Your task to perform on an android device: Go to ESPN.com Image 0: 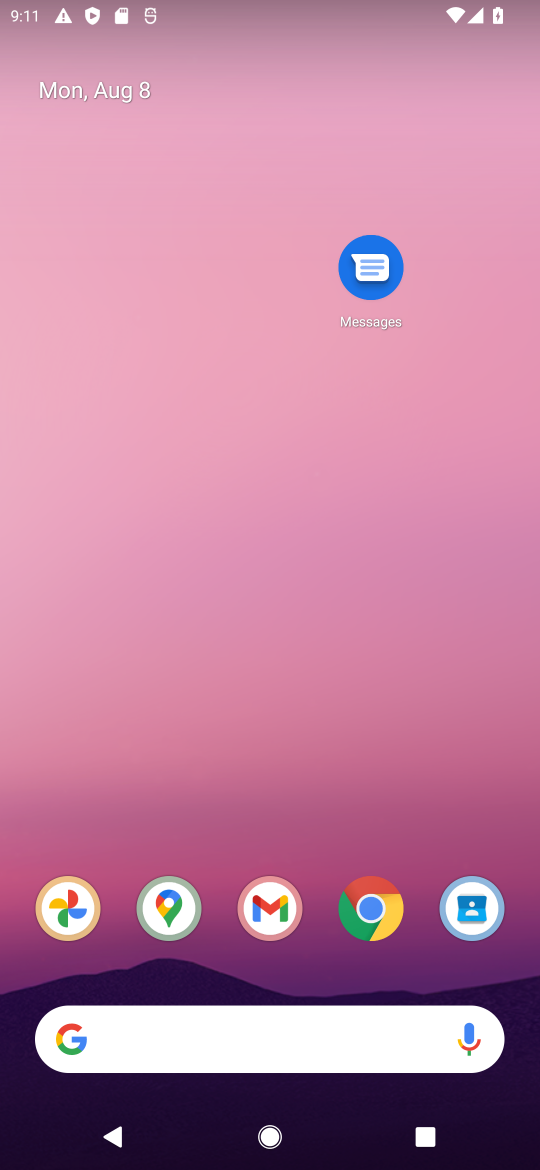
Step 0: click (232, 1053)
Your task to perform on an android device: Go to ESPN.com Image 1: 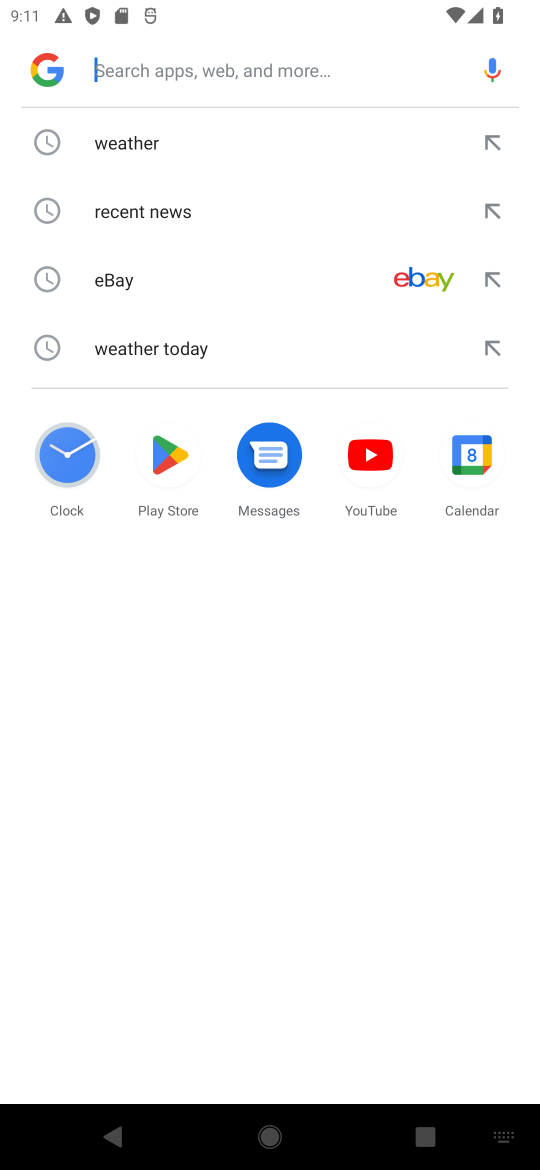
Step 1: click (58, 62)
Your task to perform on an android device: Go to ESPN.com Image 2: 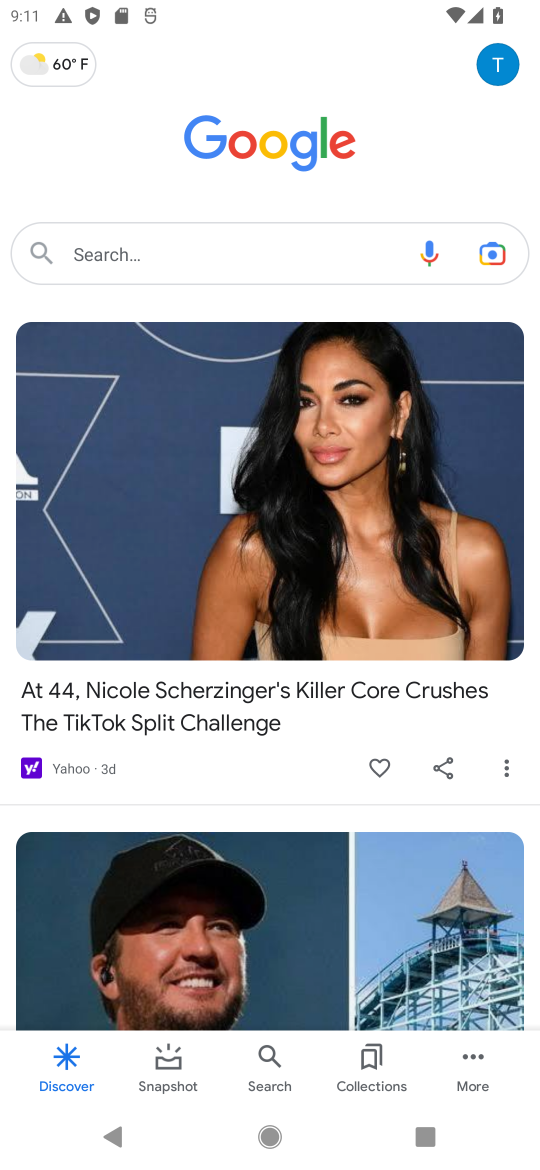
Step 2: click (217, 264)
Your task to perform on an android device: Go to ESPN.com Image 3: 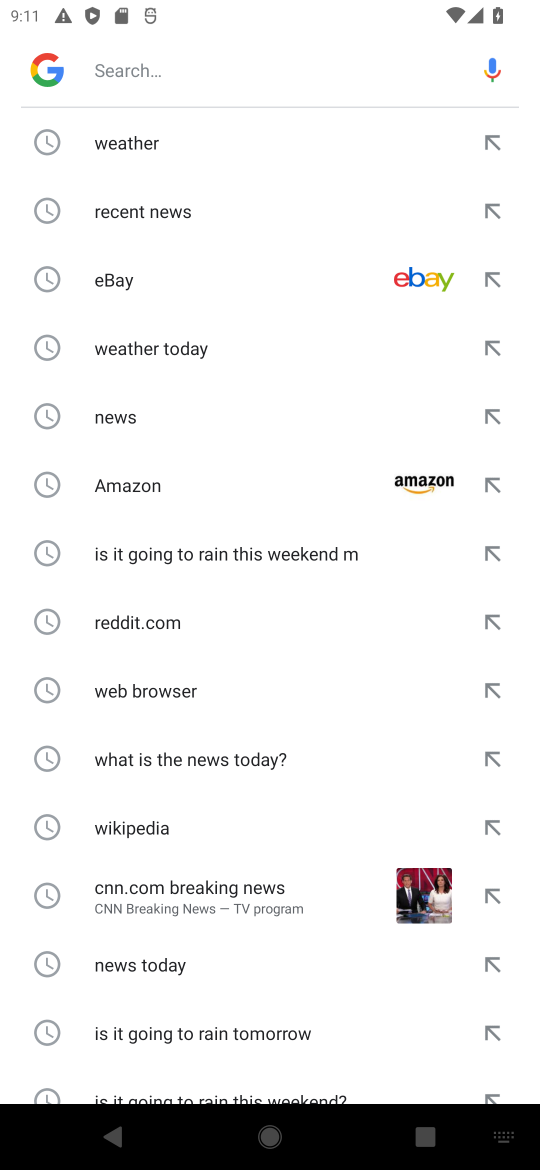
Step 3: type "espn"
Your task to perform on an android device: Go to ESPN.com Image 4: 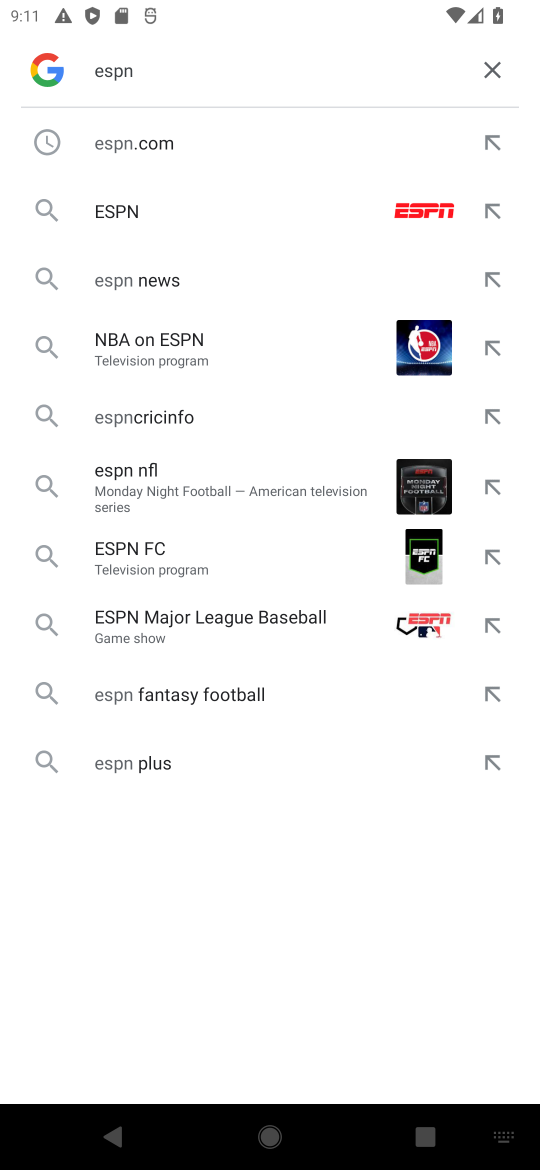
Step 4: click (215, 155)
Your task to perform on an android device: Go to ESPN.com Image 5: 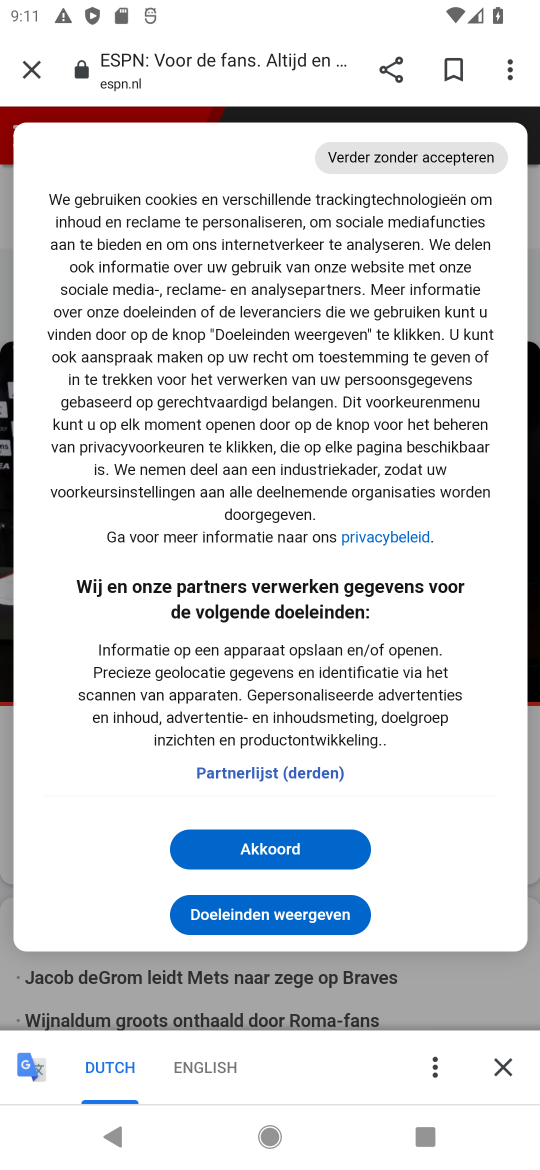
Step 5: task complete